Your task to perform on an android device: Go to notification settings Image 0: 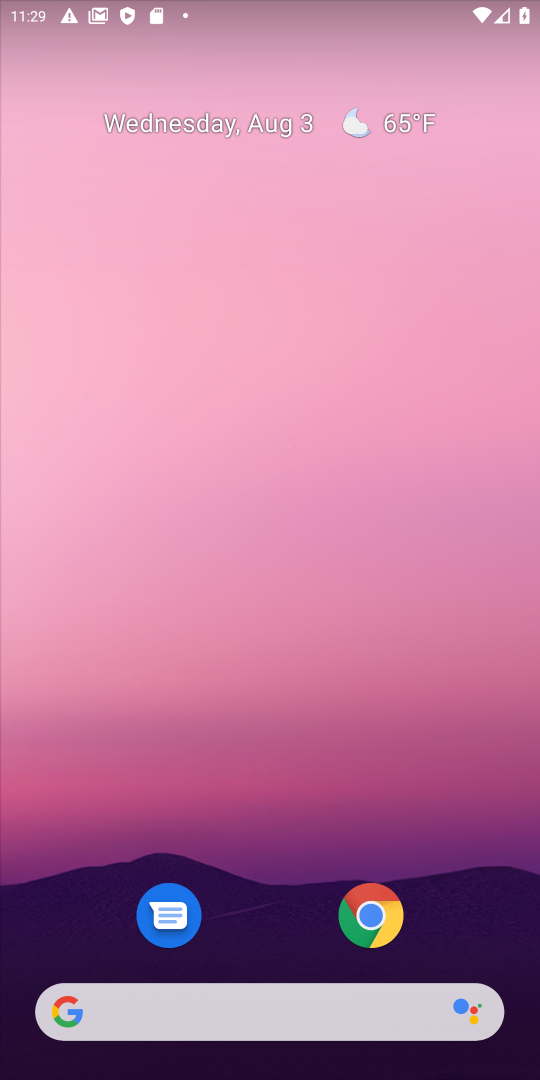
Step 0: drag from (251, 846) to (402, 10)
Your task to perform on an android device: Go to notification settings Image 1: 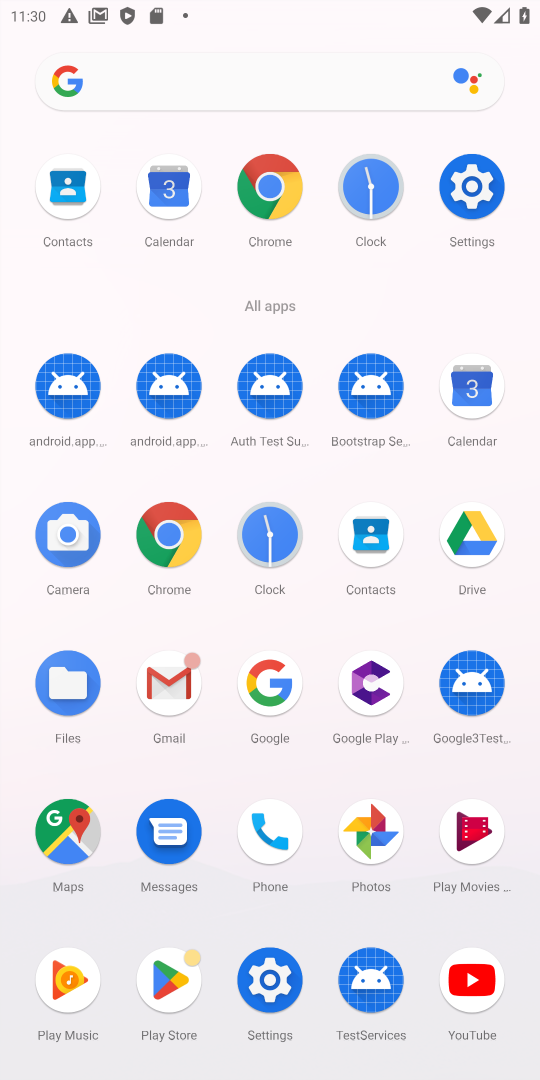
Step 1: click (473, 184)
Your task to perform on an android device: Go to notification settings Image 2: 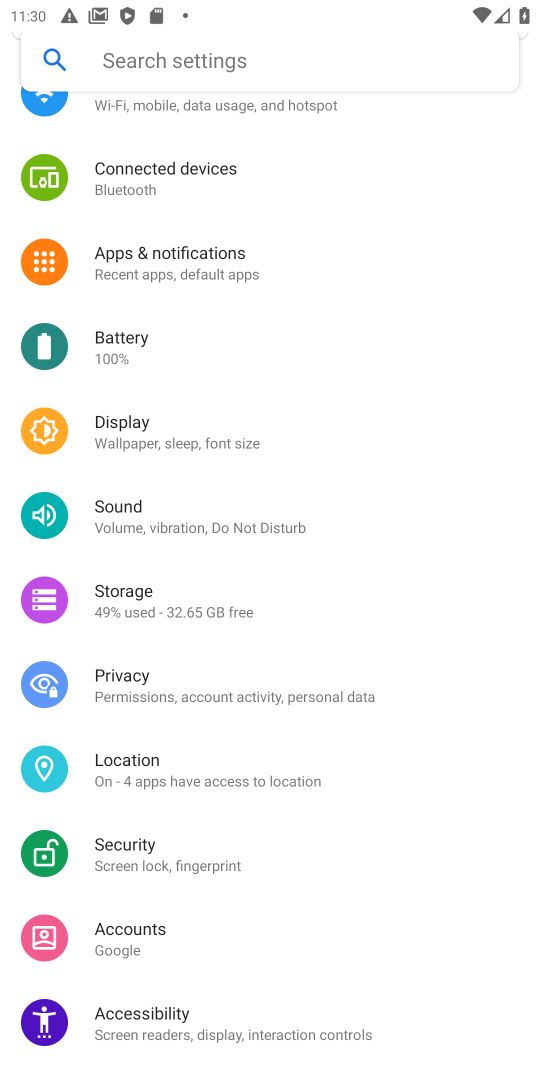
Step 2: click (226, 253)
Your task to perform on an android device: Go to notification settings Image 3: 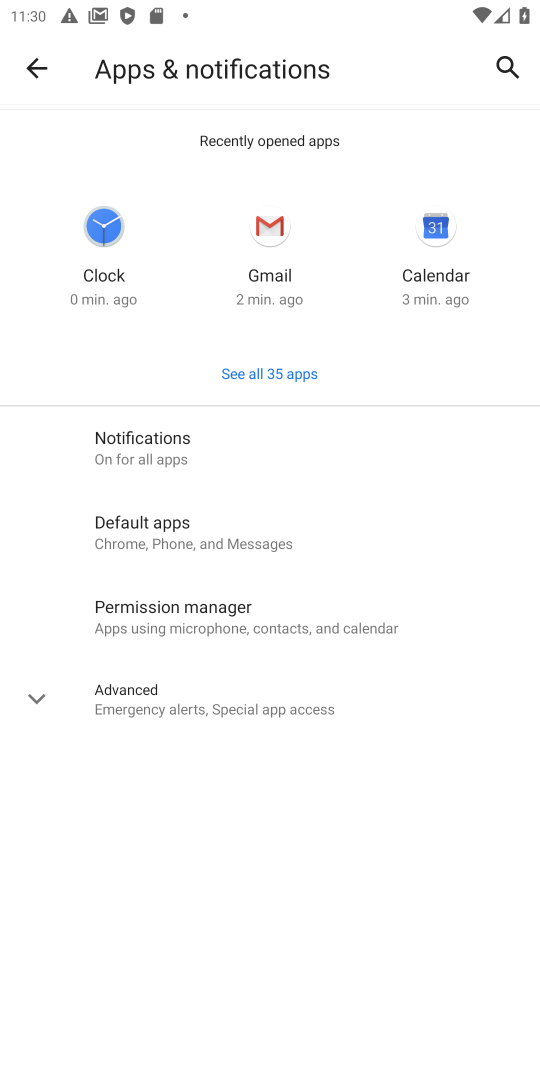
Step 3: task complete